Your task to perform on an android device: Open Wikipedia Image 0: 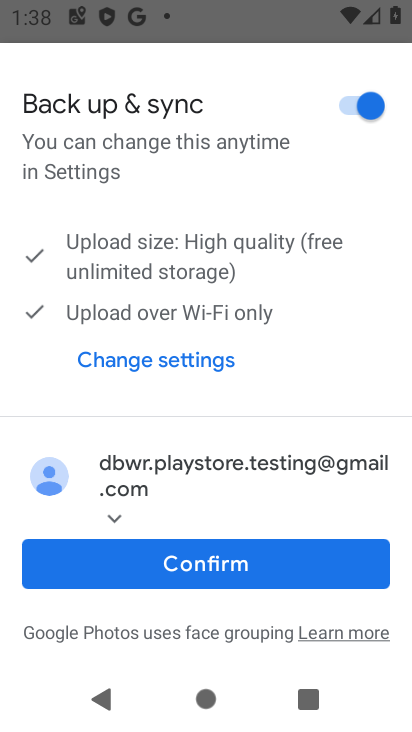
Step 0: press home button
Your task to perform on an android device: Open Wikipedia Image 1: 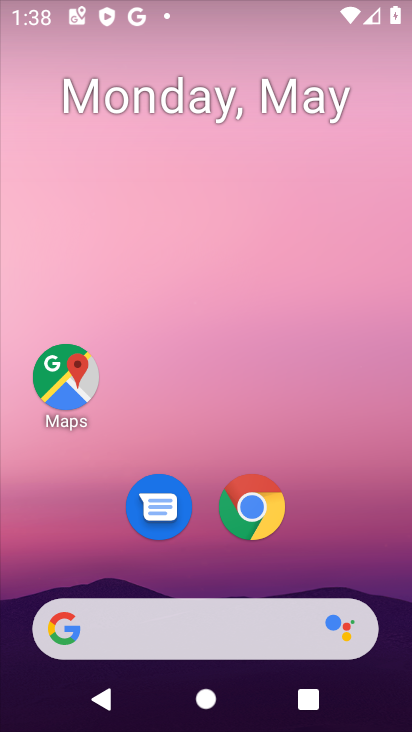
Step 1: drag from (348, 501) to (259, 123)
Your task to perform on an android device: Open Wikipedia Image 2: 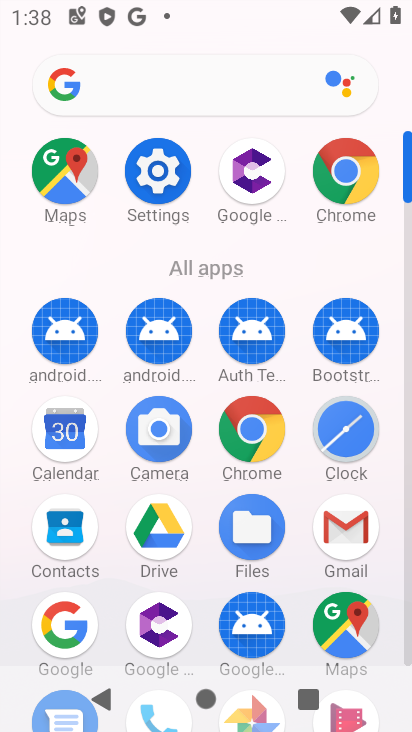
Step 2: click (263, 419)
Your task to perform on an android device: Open Wikipedia Image 3: 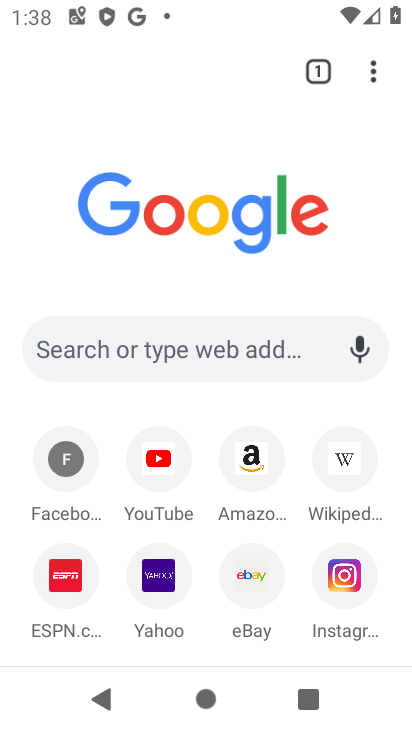
Step 3: click (328, 467)
Your task to perform on an android device: Open Wikipedia Image 4: 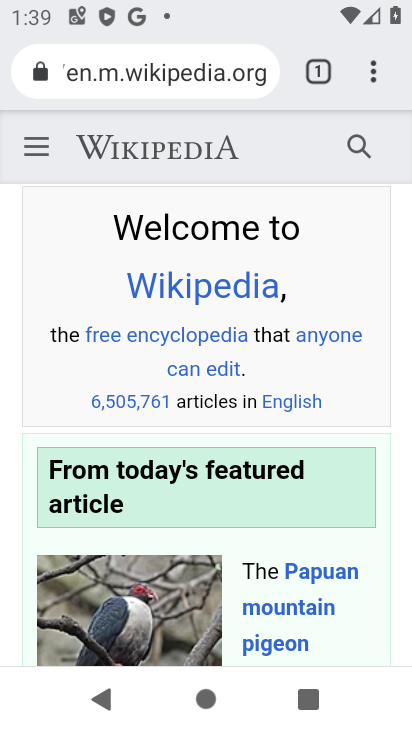
Step 4: task complete